Your task to perform on an android device: read, delete, or share a saved page in the chrome app Image 0: 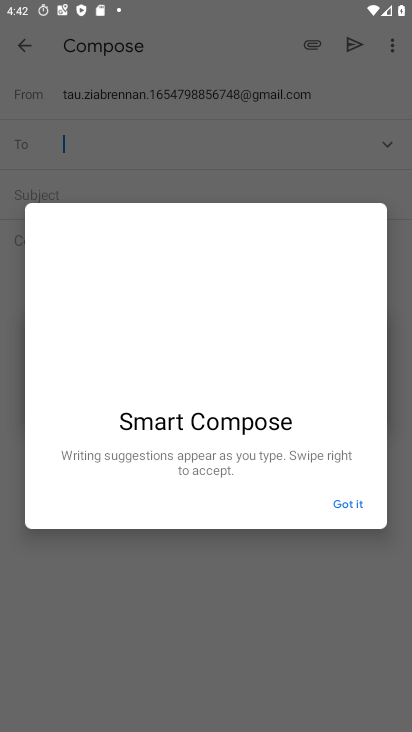
Step 0: press home button
Your task to perform on an android device: read, delete, or share a saved page in the chrome app Image 1: 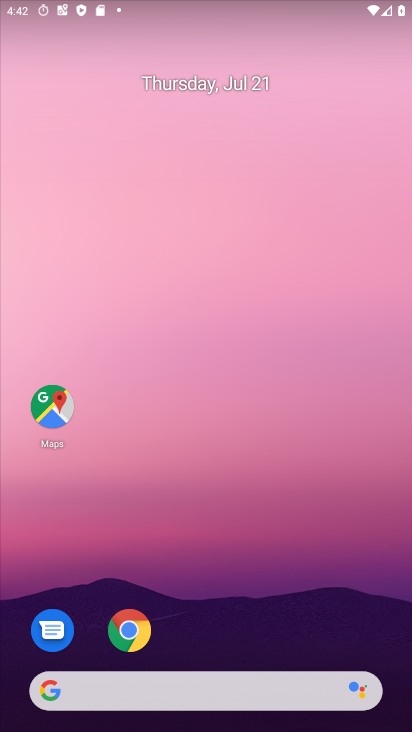
Step 1: click (131, 631)
Your task to perform on an android device: read, delete, or share a saved page in the chrome app Image 2: 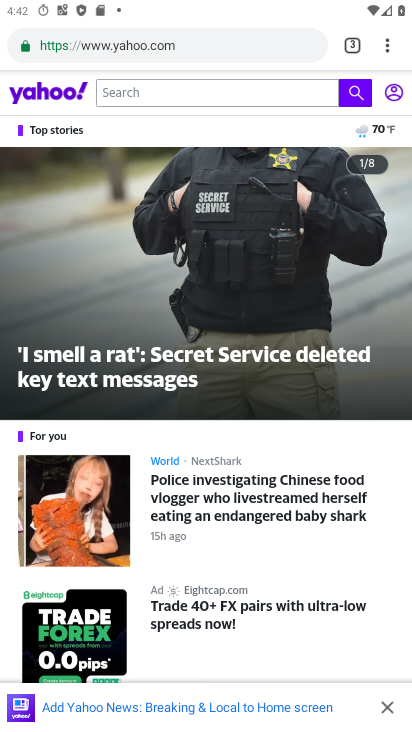
Step 2: click (388, 46)
Your task to perform on an android device: read, delete, or share a saved page in the chrome app Image 3: 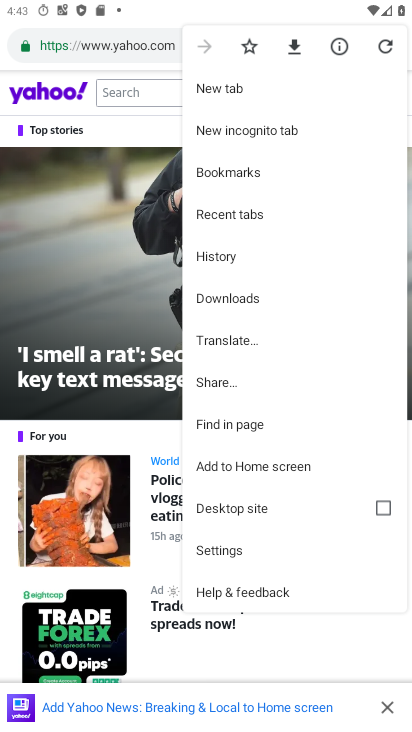
Step 3: click (235, 299)
Your task to perform on an android device: read, delete, or share a saved page in the chrome app Image 4: 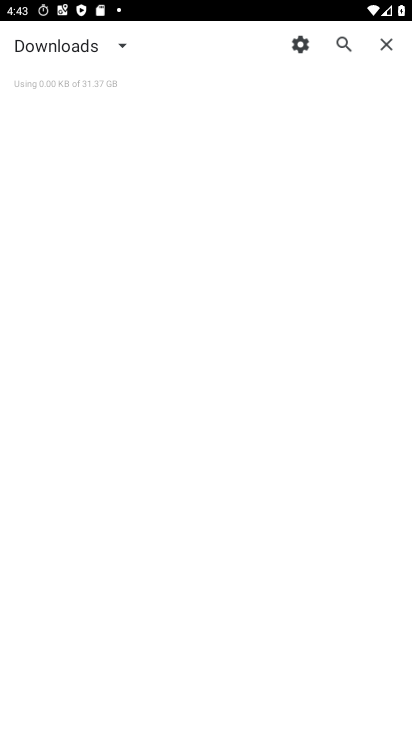
Step 4: click (120, 47)
Your task to perform on an android device: read, delete, or share a saved page in the chrome app Image 5: 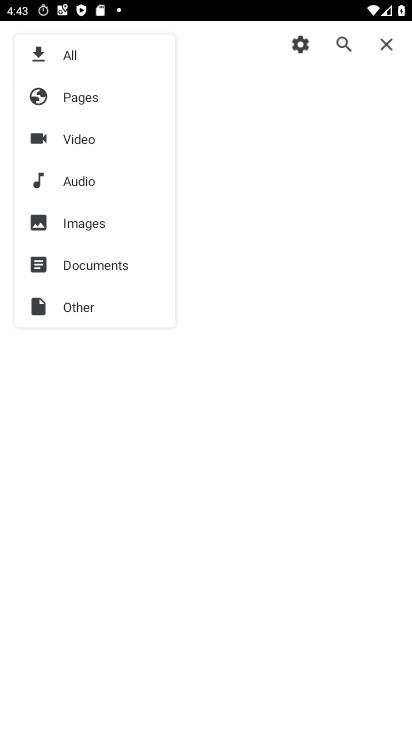
Step 5: click (94, 191)
Your task to perform on an android device: read, delete, or share a saved page in the chrome app Image 6: 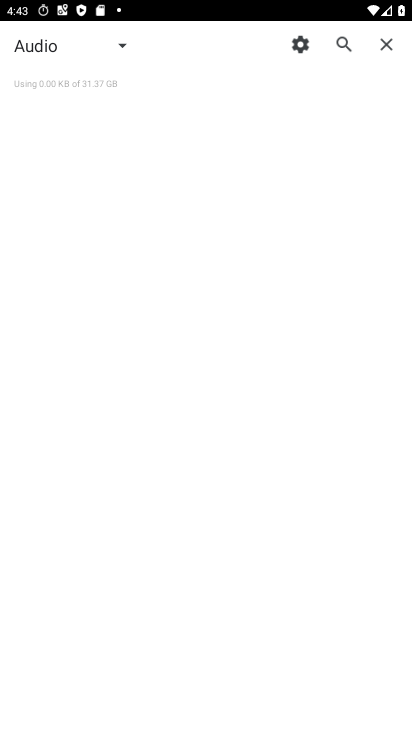
Step 6: task complete